Your task to perform on an android device: Is it going to rain today? Image 0: 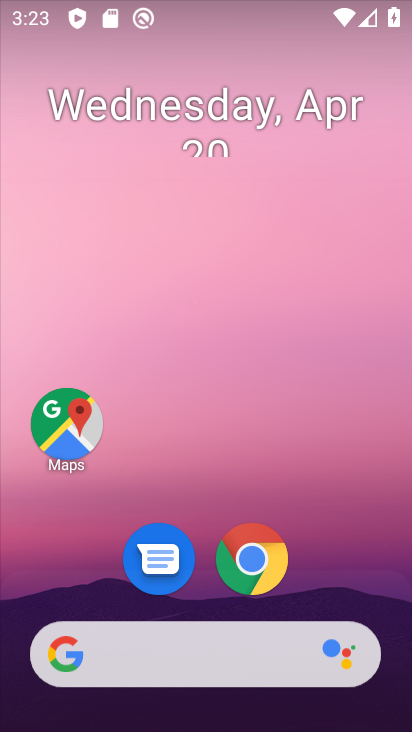
Step 0: click (254, 547)
Your task to perform on an android device: Is it going to rain today? Image 1: 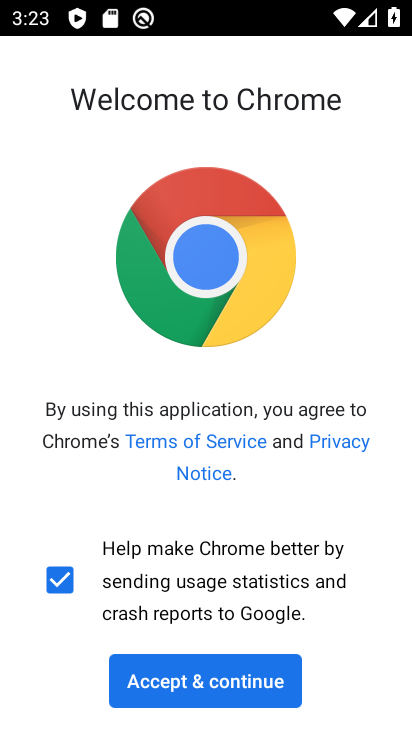
Step 1: click (210, 672)
Your task to perform on an android device: Is it going to rain today? Image 2: 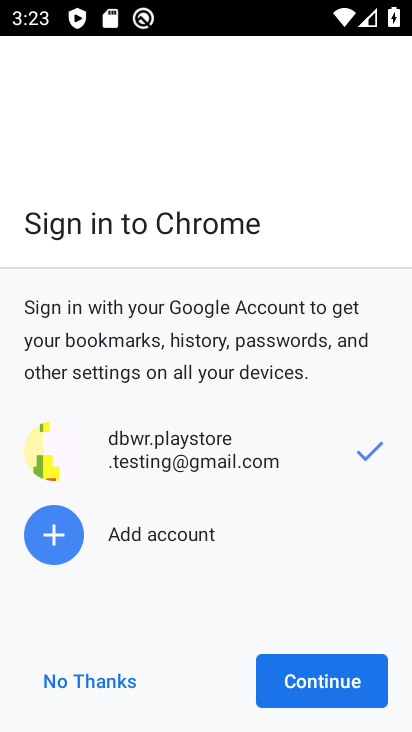
Step 2: click (326, 688)
Your task to perform on an android device: Is it going to rain today? Image 3: 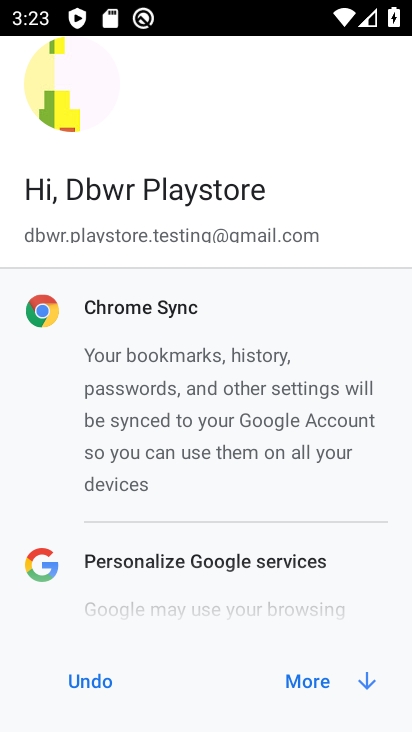
Step 3: click (316, 698)
Your task to perform on an android device: Is it going to rain today? Image 4: 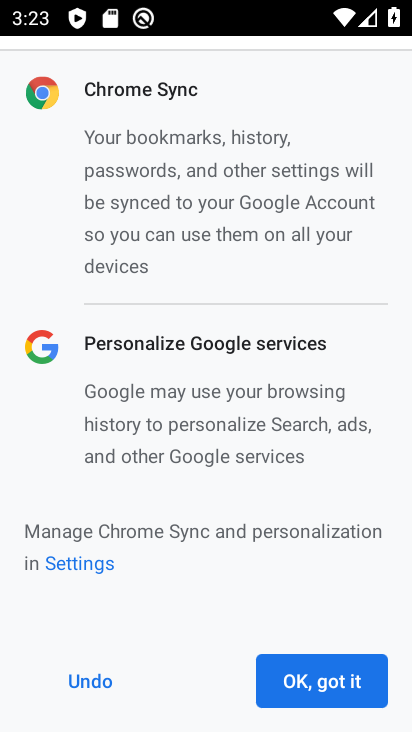
Step 4: click (317, 688)
Your task to perform on an android device: Is it going to rain today? Image 5: 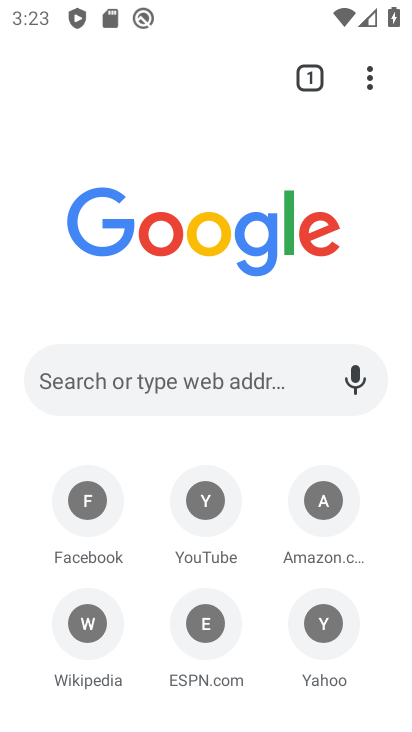
Step 5: click (185, 363)
Your task to perform on an android device: Is it going to rain today? Image 6: 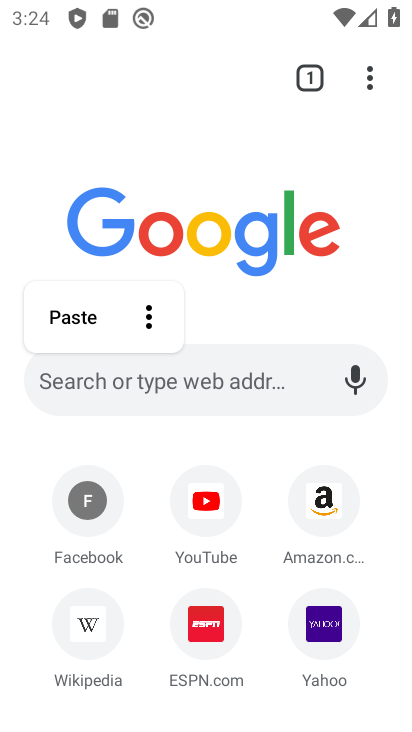
Step 6: type "is it going to rain today?"
Your task to perform on an android device: Is it going to rain today? Image 7: 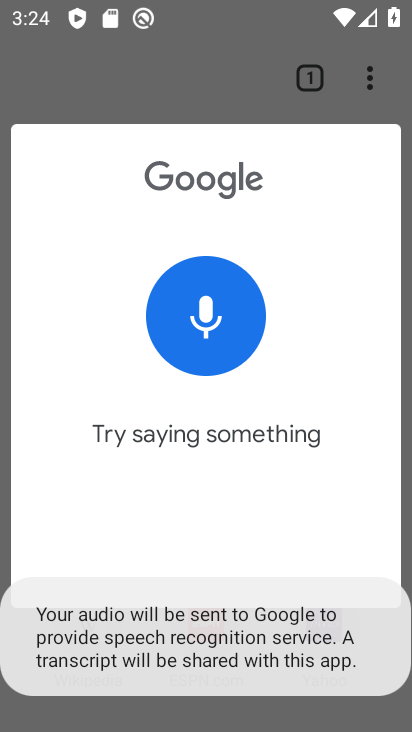
Step 7: click (36, 379)
Your task to perform on an android device: Is it going to rain today? Image 8: 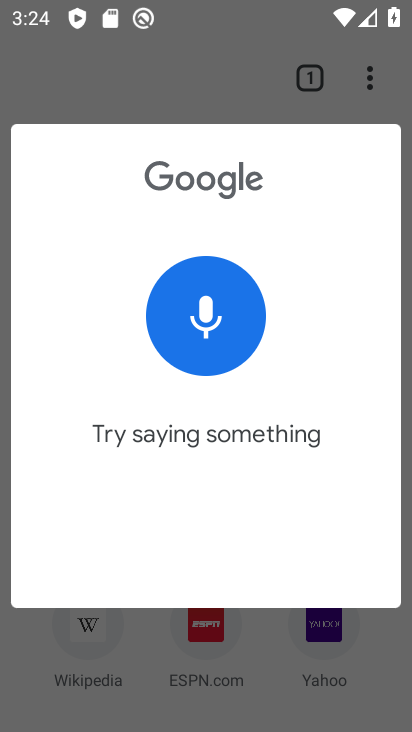
Step 8: click (225, 69)
Your task to perform on an android device: Is it going to rain today? Image 9: 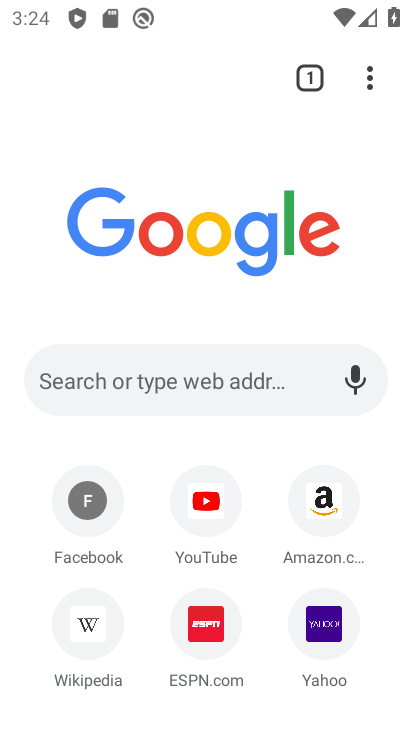
Step 9: click (150, 390)
Your task to perform on an android device: Is it going to rain today? Image 10: 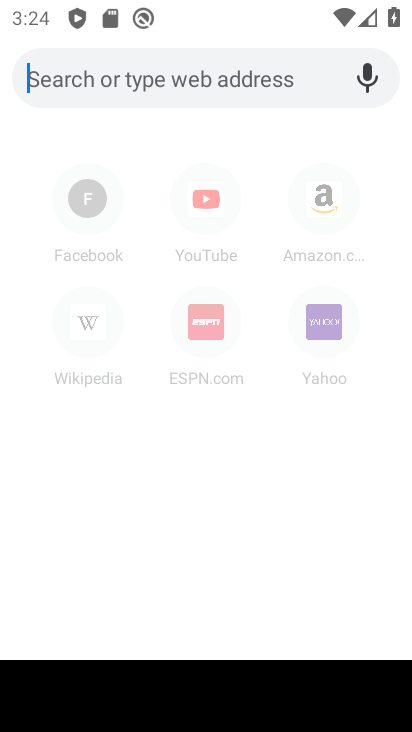
Step 10: type "is it going to rain today"
Your task to perform on an android device: Is it going to rain today? Image 11: 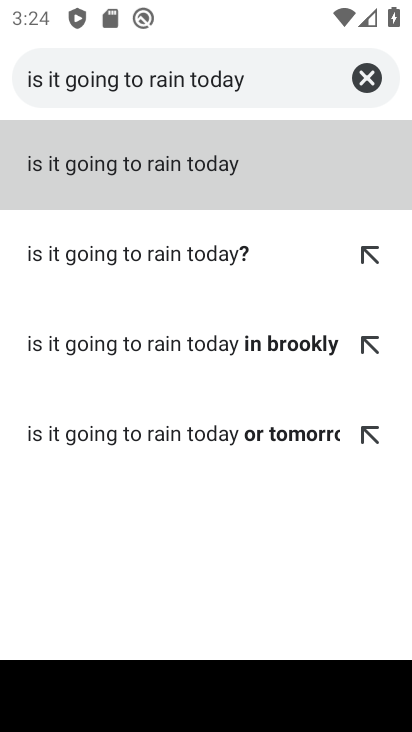
Step 11: click (135, 171)
Your task to perform on an android device: Is it going to rain today? Image 12: 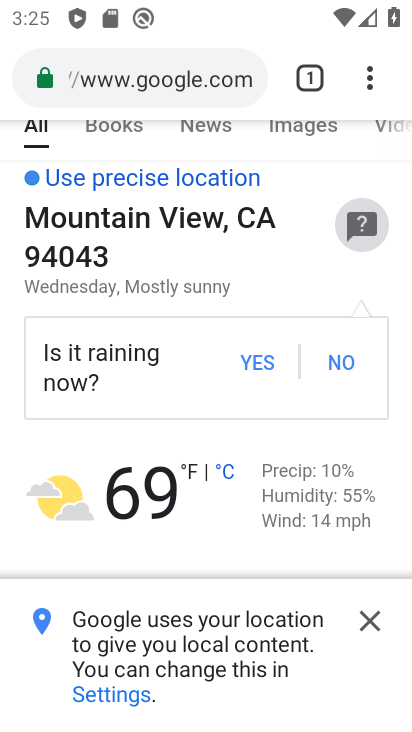
Step 12: task complete